Your task to perform on an android device: open app "PUBG MOBILE" (install if not already installed) and go to login screen Image 0: 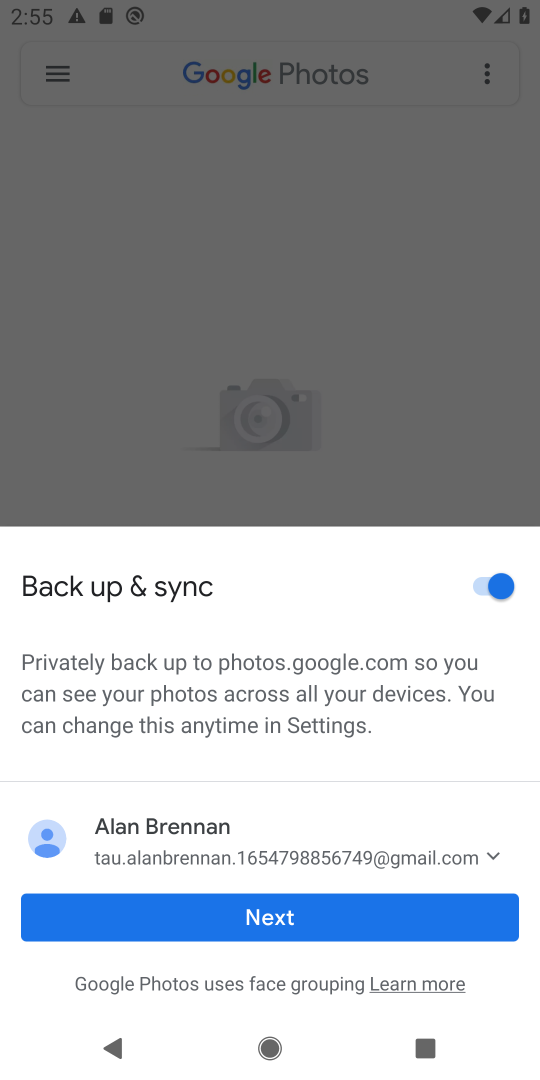
Step 0: press home button
Your task to perform on an android device: open app "PUBG MOBILE" (install if not already installed) and go to login screen Image 1: 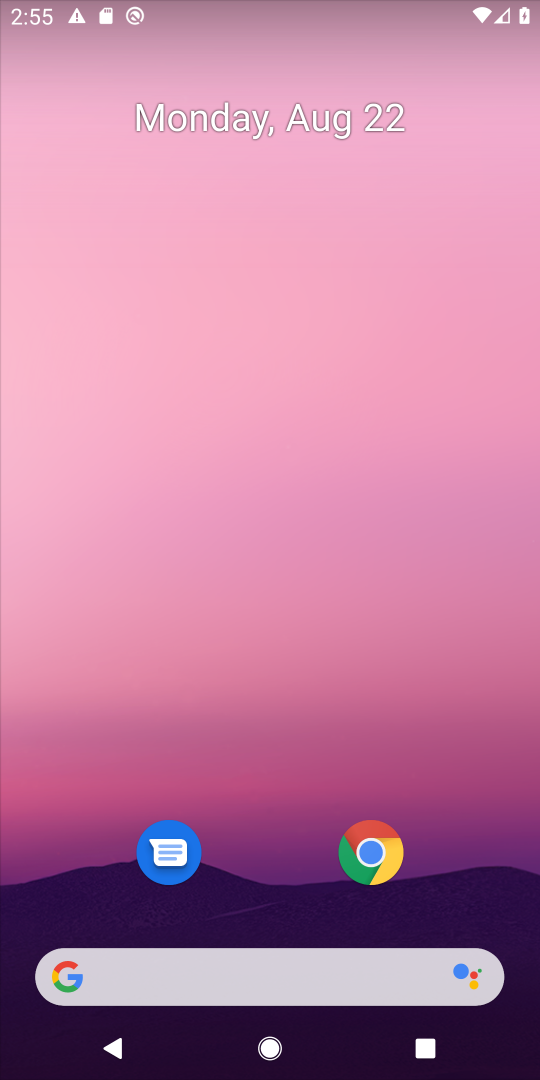
Step 1: drag from (259, 932) to (253, 53)
Your task to perform on an android device: open app "PUBG MOBILE" (install if not already installed) and go to login screen Image 2: 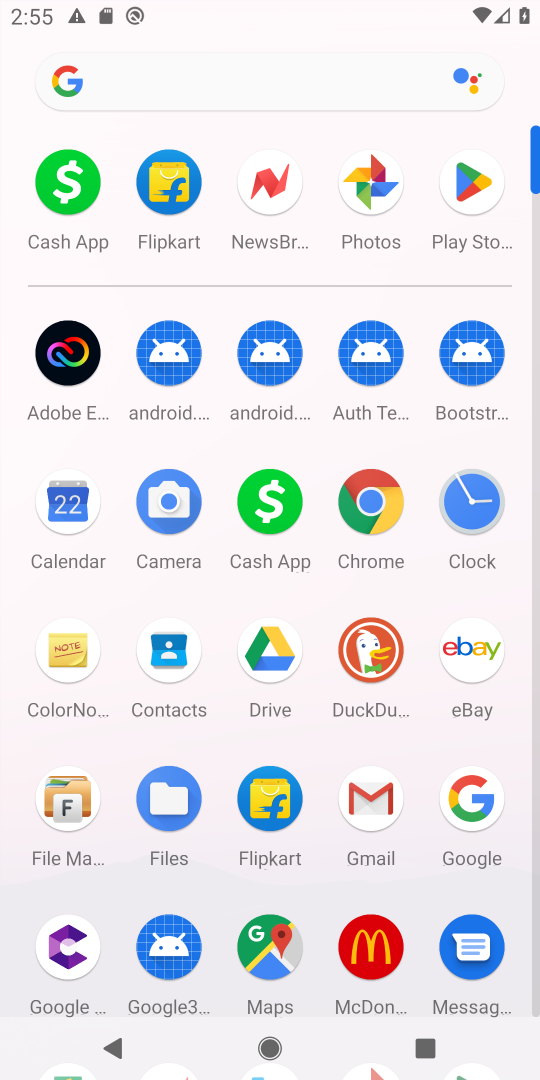
Step 2: click (469, 180)
Your task to perform on an android device: open app "PUBG MOBILE" (install if not already installed) and go to login screen Image 3: 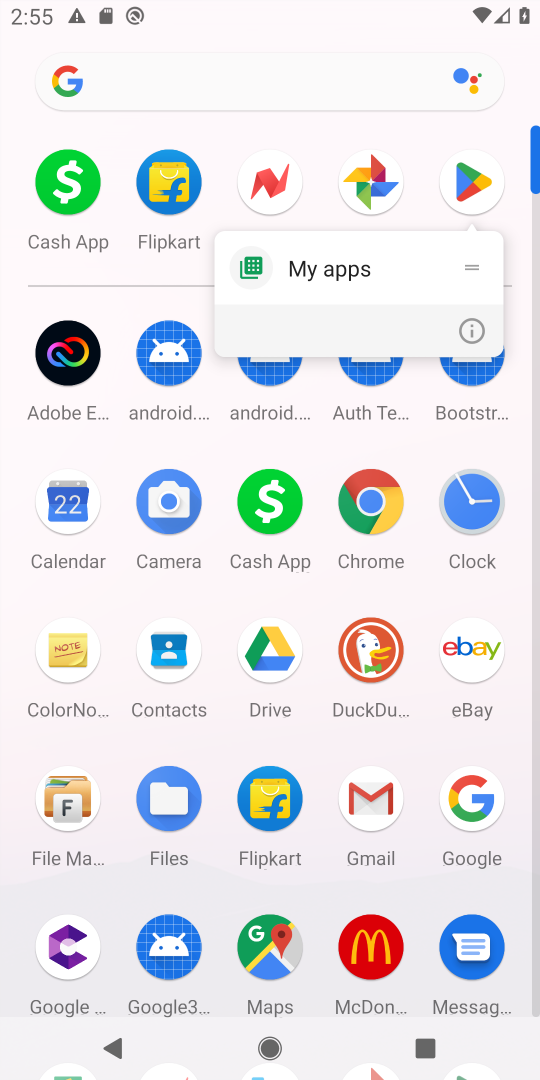
Step 3: click (471, 181)
Your task to perform on an android device: open app "PUBG MOBILE" (install if not already installed) and go to login screen Image 4: 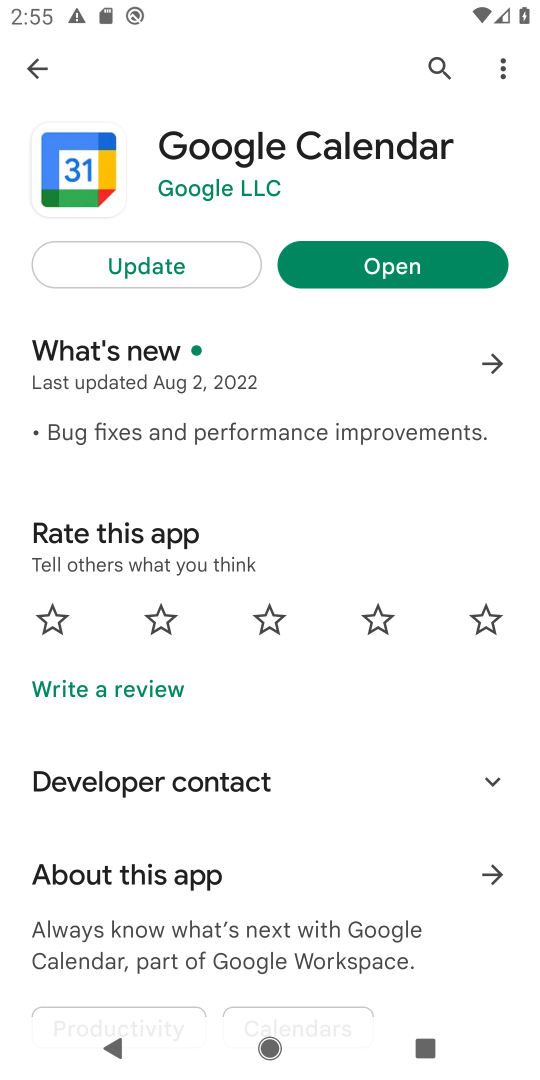
Step 4: click (436, 59)
Your task to perform on an android device: open app "PUBG MOBILE" (install if not already installed) and go to login screen Image 5: 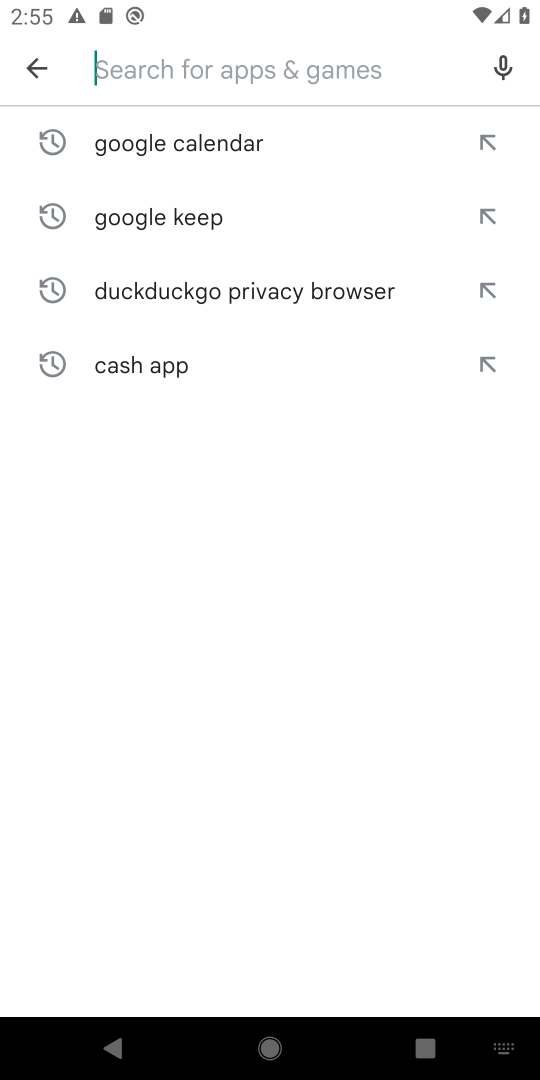
Step 5: type "PUBG MOBILE"
Your task to perform on an android device: open app "PUBG MOBILE" (install if not already installed) and go to login screen Image 6: 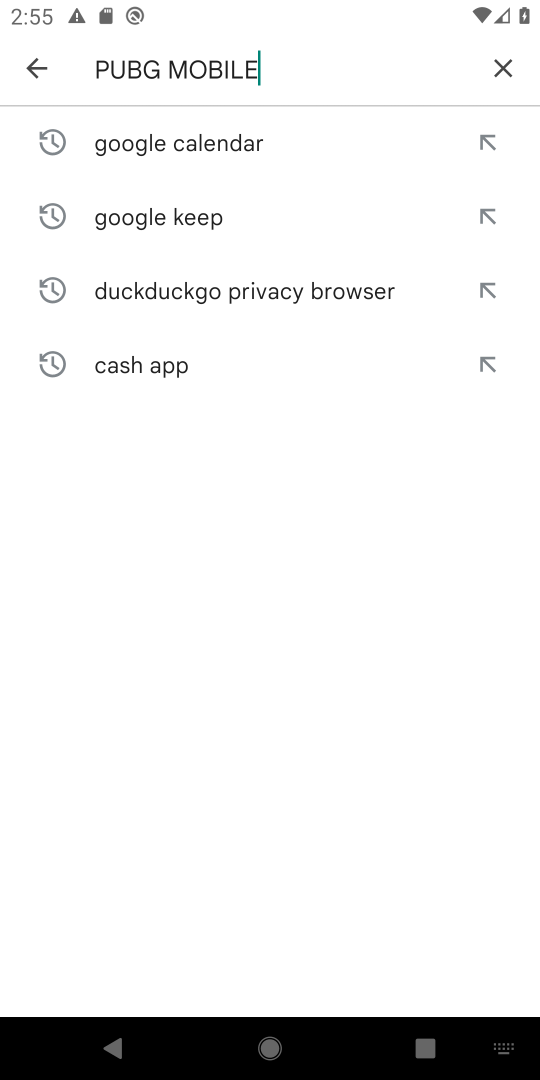
Step 6: type ""
Your task to perform on an android device: open app "PUBG MOBILE" (install if not already installed) and go to login screen Image 7: 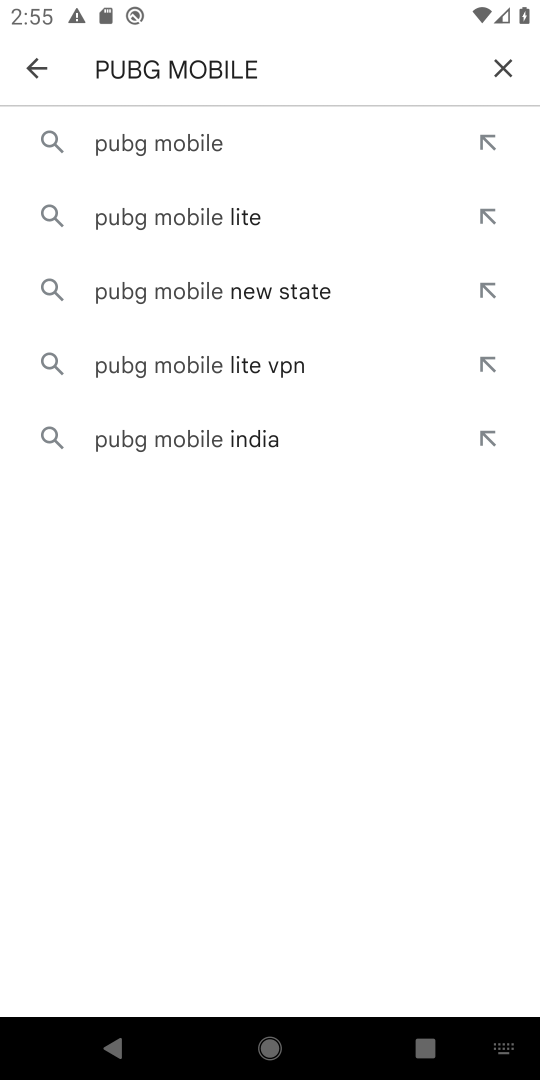
Step 7: click (186, 141)
Your task to perform on an android device: open app "PUBG MOBILE" (install if not already installed) and go to login screen Image 8: 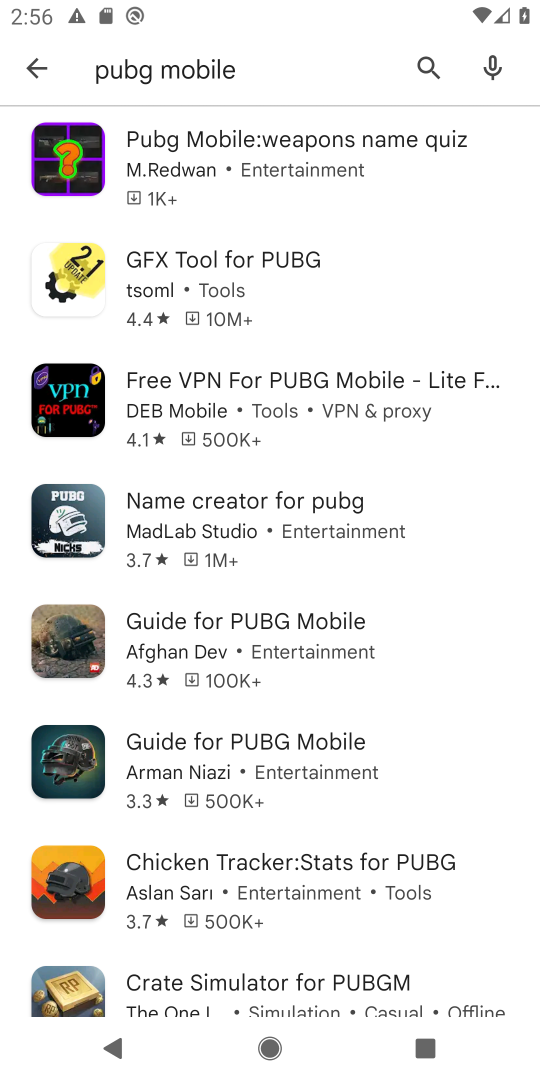
Step 8: click (320, 141)
Your task to perform on an android device: open app "PUBG MOBILE" (install if not already installed) and go to login screen Image 9: 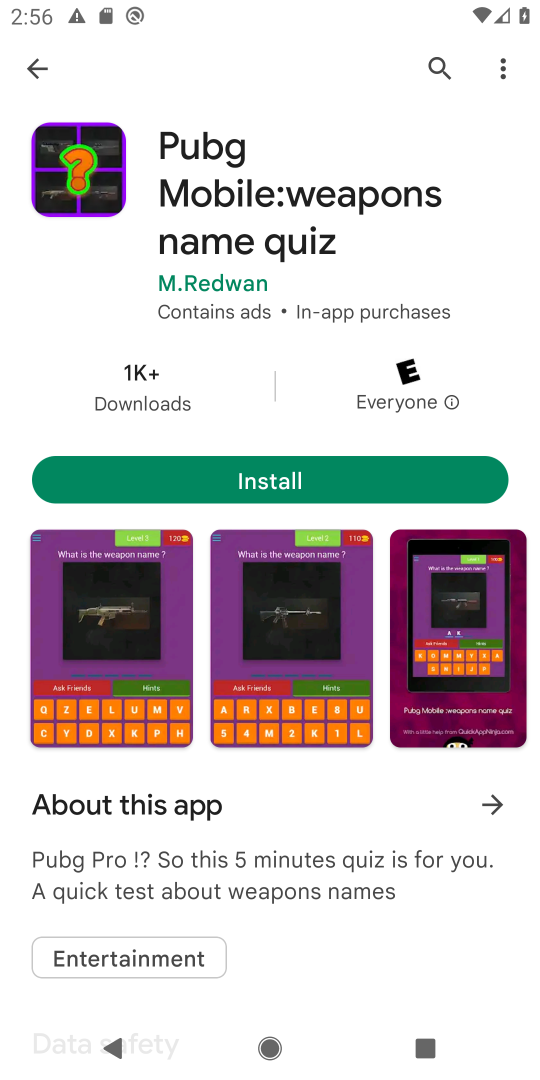
Step 9: task complete